Your task to perform on an android device: Open the calendar and show me this week's events? Image 0: 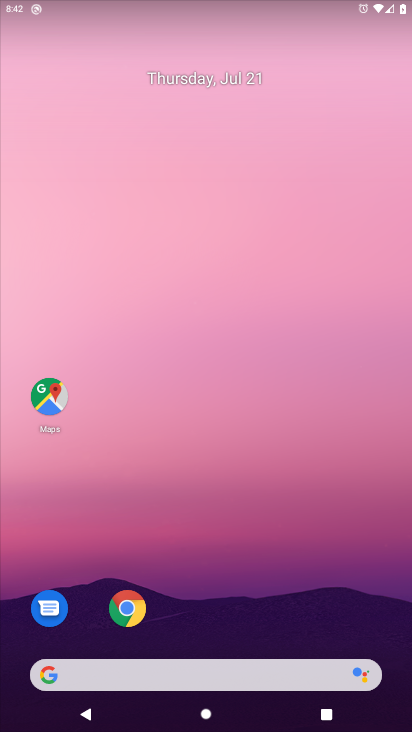
Step 0: drag from (47, 666) to (284, 15)
Your task to perform on an android device: Open the calendar and show me this week's events? Image 1: 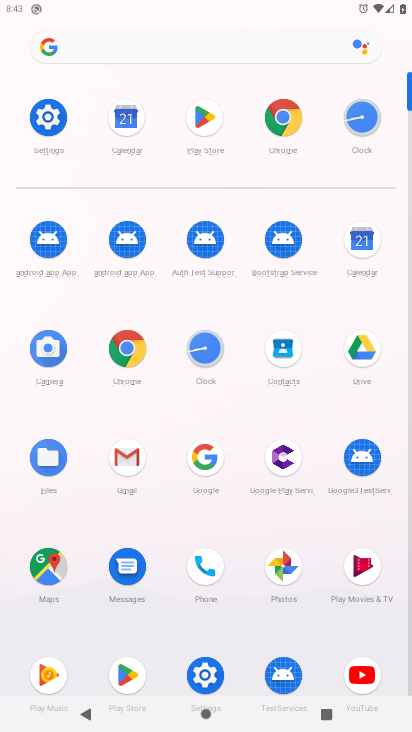
Step 1: click (347, 252)
Your task to perform on an android device: Open the calendar and show me this week's events? Image 2: 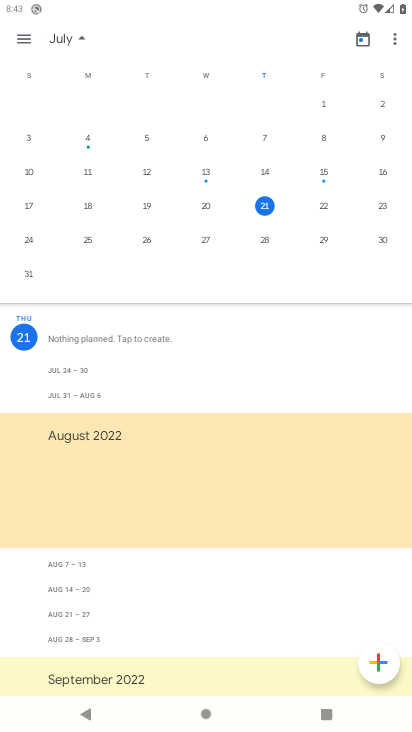
Step 2: task complete